Your task to perform on an android device: move a message to another label in the gmail app Image 0: 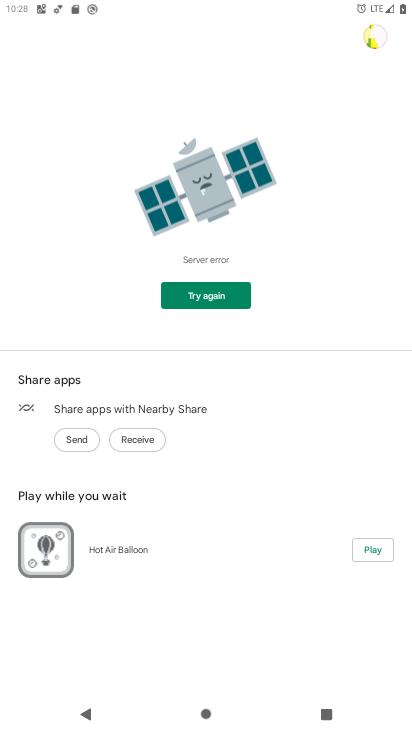
Step 0: press home button
Your task to perform on an android device: move a message to another label in the gmail app Image 1: 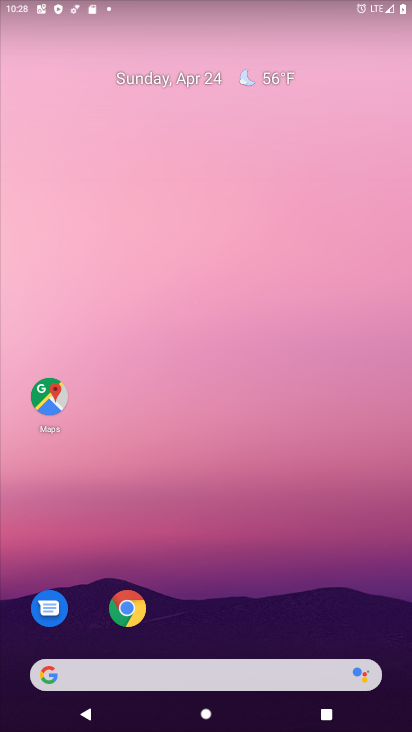
Step 1: drag from (221, 642) to (319, 4)
Your task to perform on an android device: move a message to another label in the gmail app Image 2: 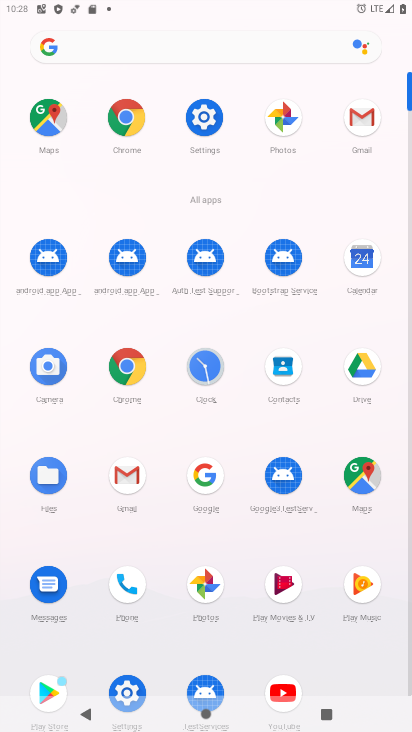
Step 2: click (126, 475)
Your task to perform on an android device: move a message to another label in the gmail app Image 3: 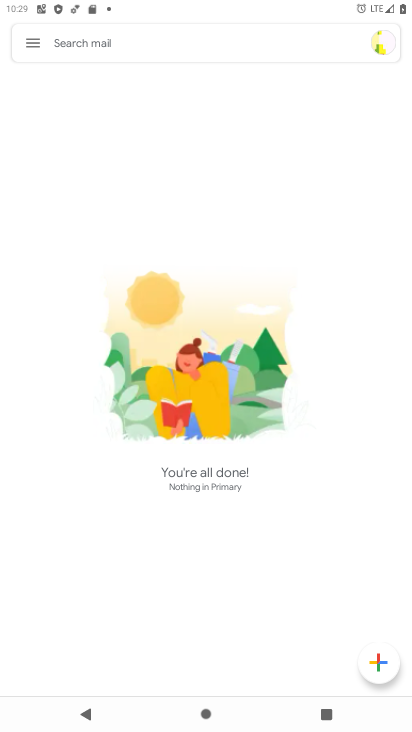
Step 3: task complete